Your task to perform on an android device: open sync settings in chrome Image 0: 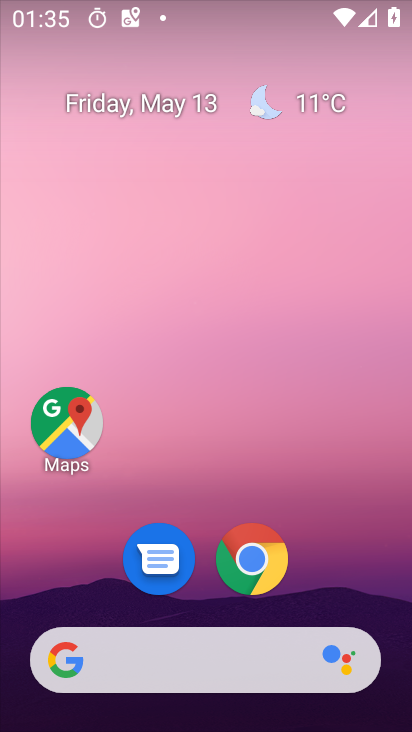
Step 0: click (263, 560)
Your task to perform on an android device: open sync settings in chrome Image 1: 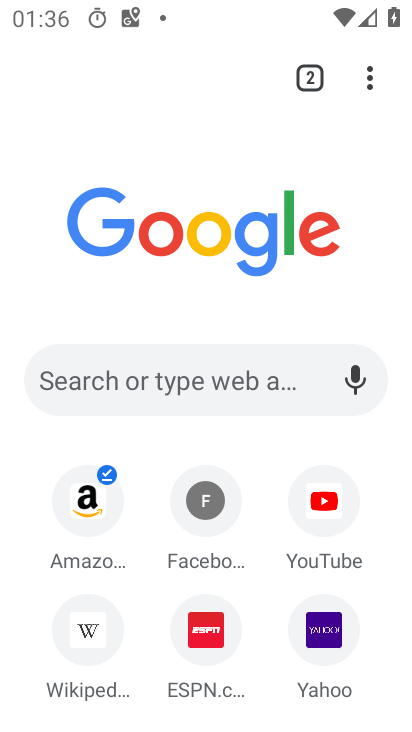
Step 1: click (364, 82)
Your task to perform on an android device: open sync settings in chrome Image 2: 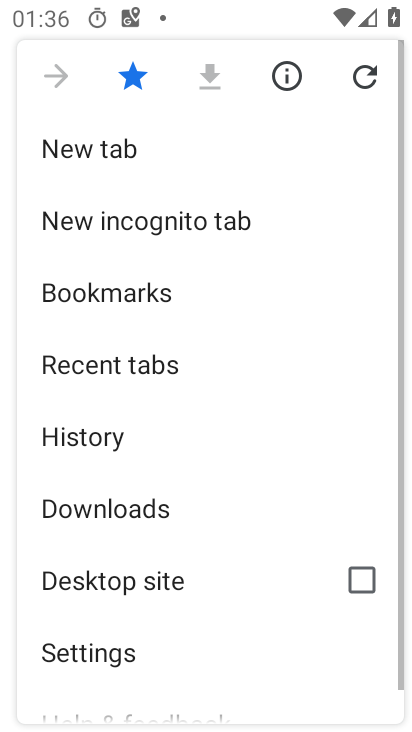
Step 2: drag from (168, 629) to (192, 405)
Your task to perform on an android device: open sync settings in chrome Image 3: 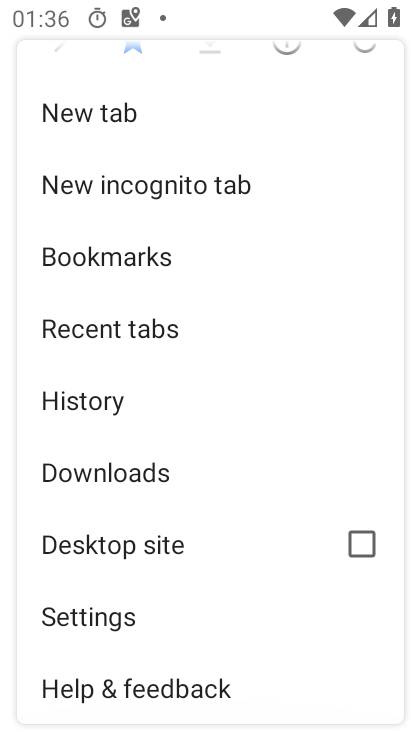
Step 3: click (111, 587)
Your task to perform on an android device: open sync settings in chrome Image 4: 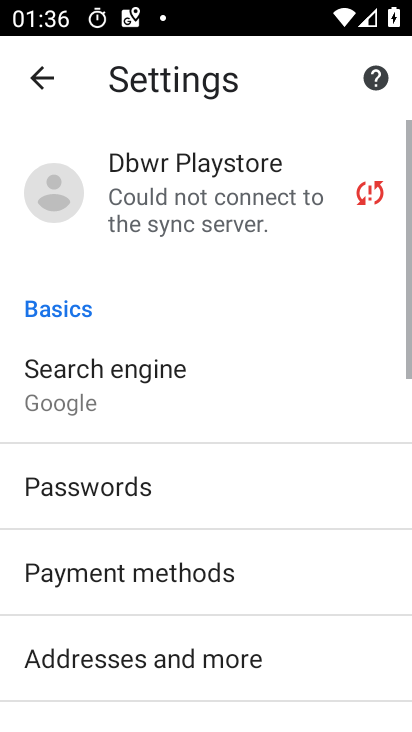
Step 4: drag from (219, 588) to (204, 137)
Your task to perform on an android device: open sync settings in chrome Image 5: 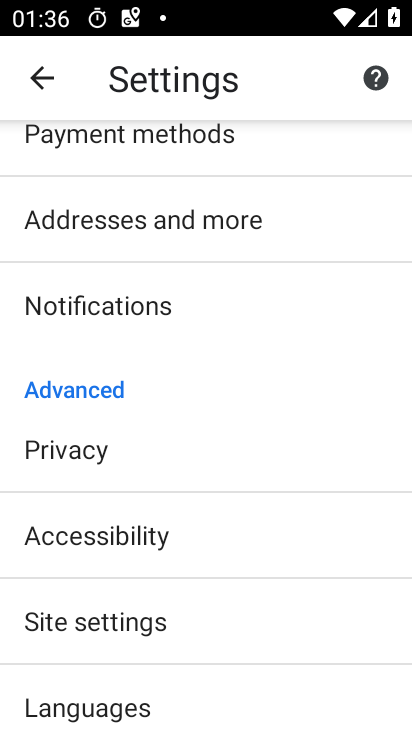
Step 5: drag from (219, 623) to (206, 389)
Your task to perform on an android device: open sync settings in chrome Image 6: 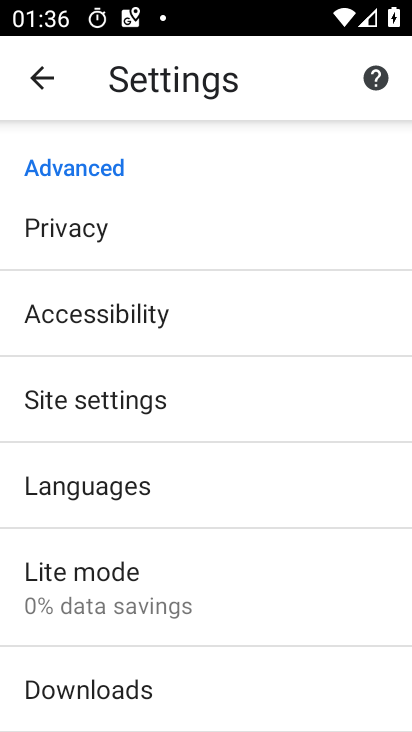
Step 6: click (131, 404)
Your task to perform on an android device: open sync settings in chrome Image 7: 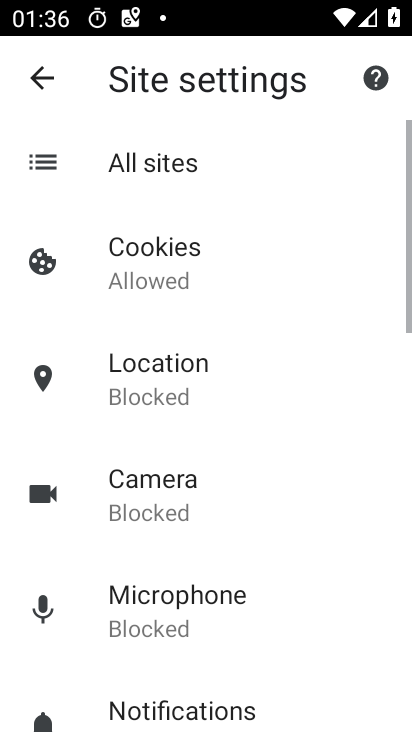
Step 7: drag from (265, 649) to (277, 152)
Your task to perform on an android device: open sync settings in chrome Image 8: 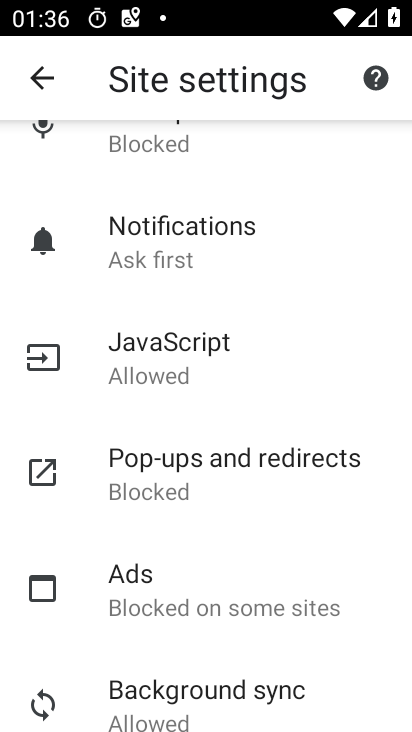
Step 8: click (201, 682)
Your task to perform on an android device: open sync settings in chrome Image 9: 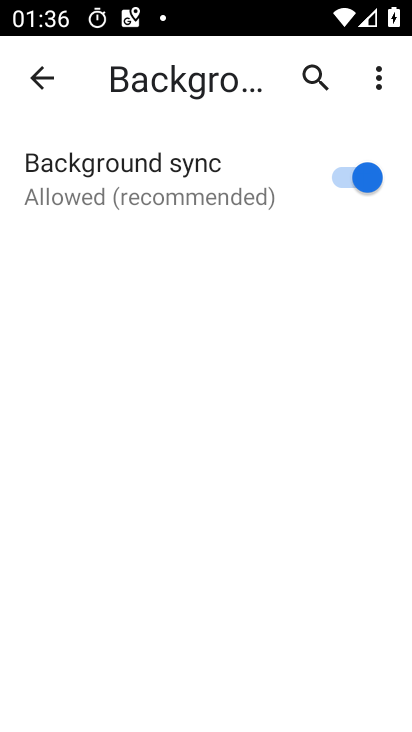
Step 9: task complete